Your task to perform on an android device: turn on translation in the chrome app Image 0: 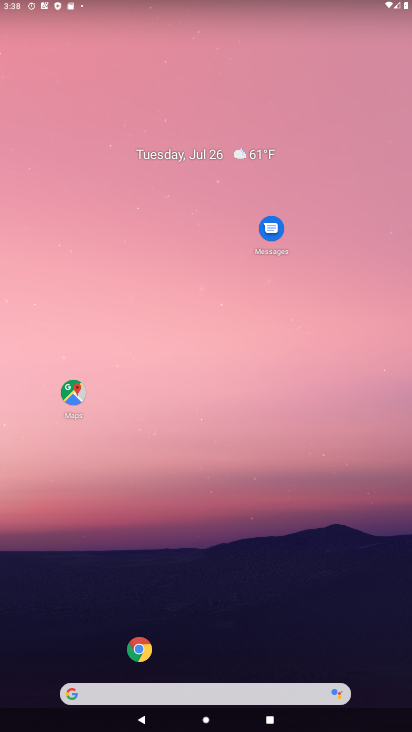
Step 0: click (129, 651)
Your task to perform on an android device: turn on translation in the chrome app Image 1: 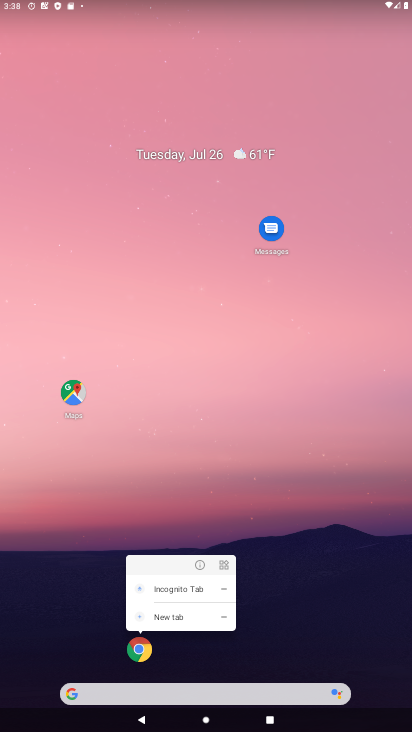
Step 1: click (143, 649)
Your task to perform on an android device: turn on translation in the chrome app Image 2: 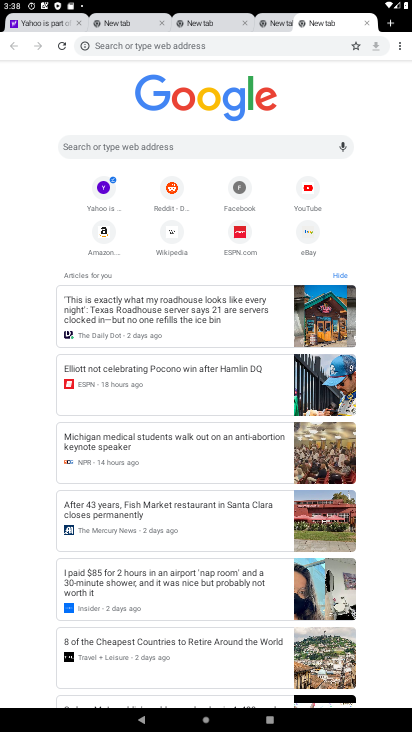
Step 2: click (400, 42)
Your task to perform on an android device: turn on translation in the chrome app Image 3: 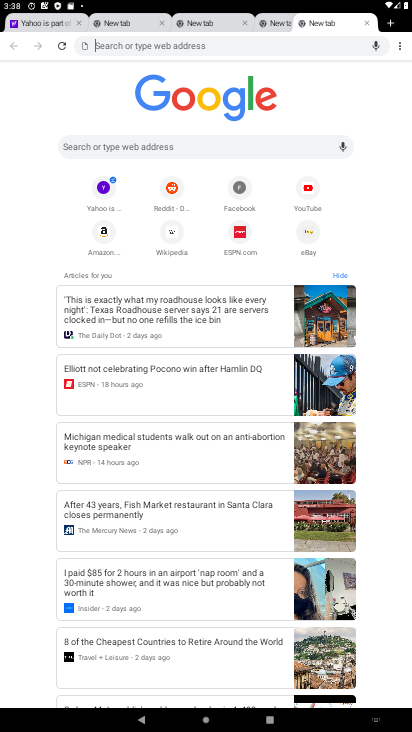
Step 3: click (402, 46)
Your task to perform on an android device: turn on translation in the chrome app Image 4: 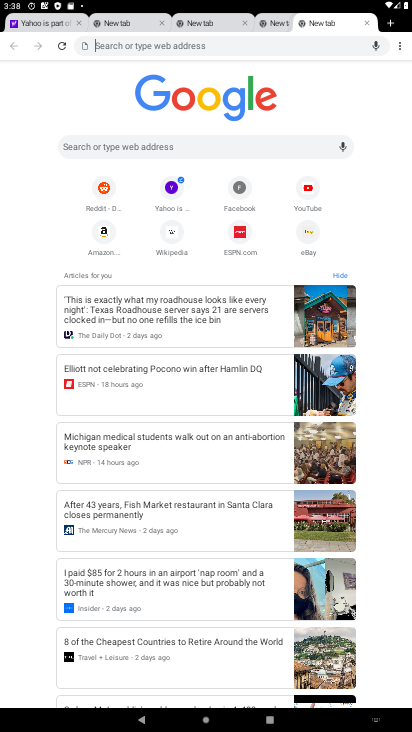
Step 4: click (394, 44)
Your task to perform on an android device: turn on translation in the chrome app Image 5: 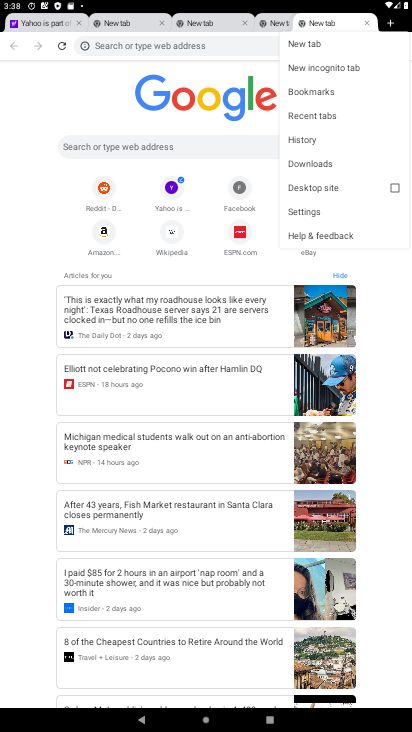
Step 5: click (296, 209)
Your task to perform on an android device: turn on translation in the chrome app Image 6: 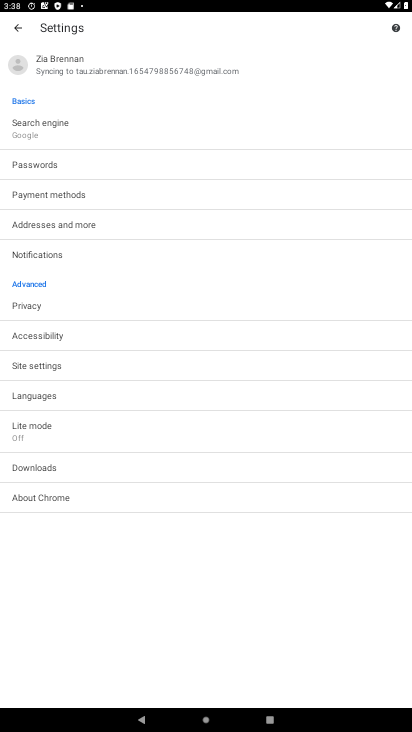
Step 6: click (51, 401)
Your task to perform on an android device: turn on translation in the chrome app Image 7: 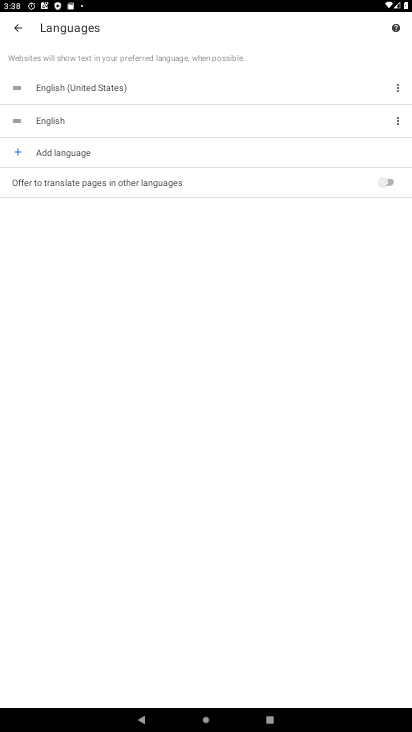
Step 7: click (387, 182)
Your task to perform on an android device: turn on translation in the chrome app Image 8: 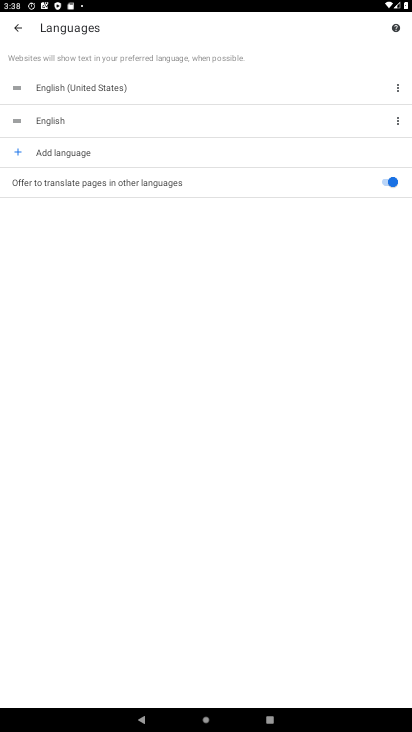
Step 8: task complete